Your task to perform on an android device: see sites visited before in the chrome app Image 0: 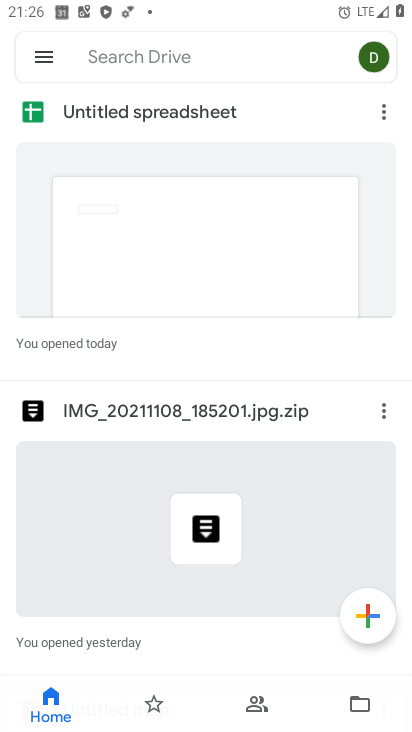
Step 0: press home button
Your task to perform on an android device: see sites visited before in the chrome app Image 1: 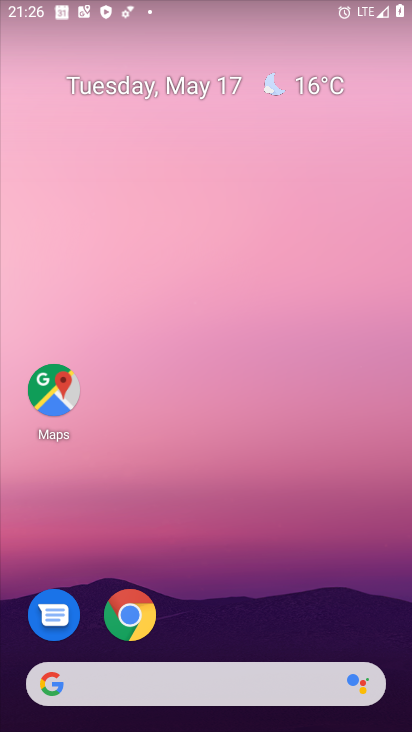
Step 1: click (139, 621)
Your task to perform on an android device: see sites visited before in the chrome app Image 2: 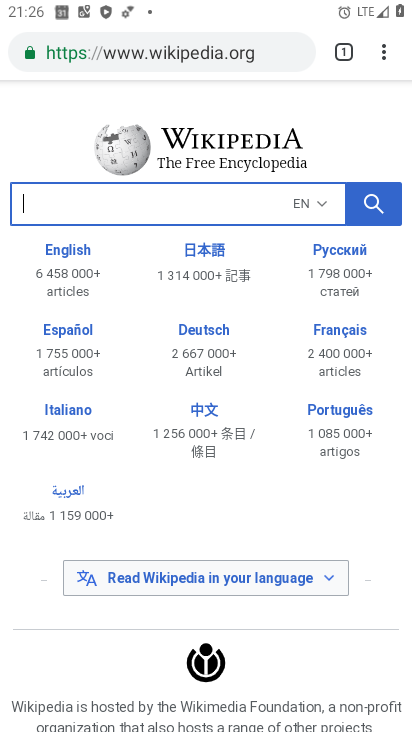
Step 2: click (388, 51)
Your task to perform on an android device: see sites visited before in the chrome app Image 3: 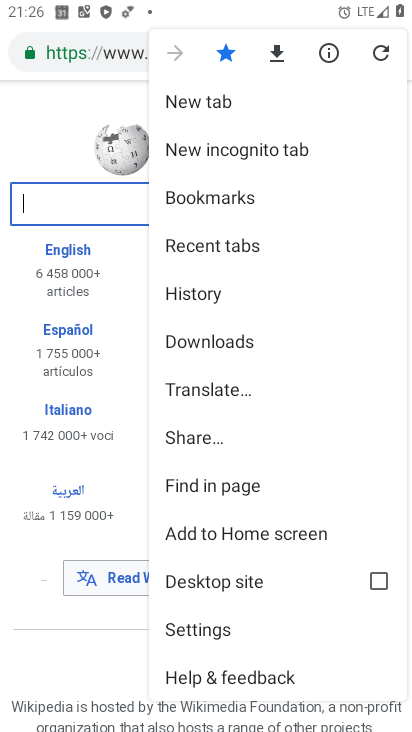
Step 3: click (222, 291)
Your task to perform on an android device: see sites visited before in the chrome app Image 4: 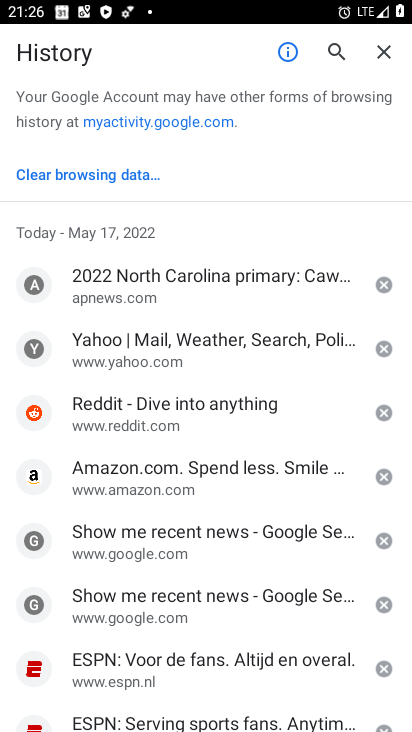
Step 4: task complete